Your task to perform on an android device: toggle wifi Image 0: 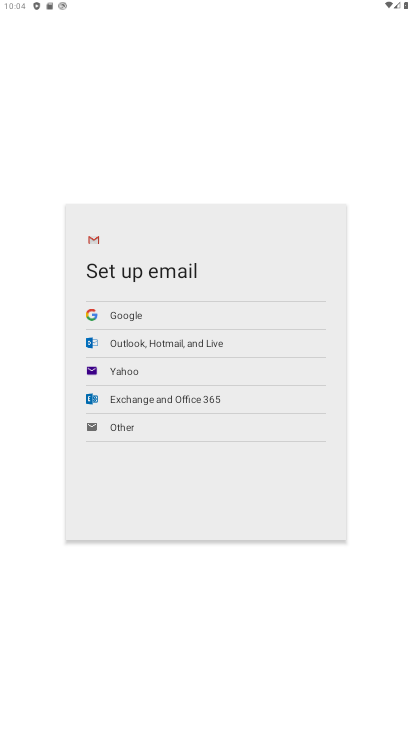
Step 0: press home button
Your task to perform on an android device: toggle wifi Image 1: 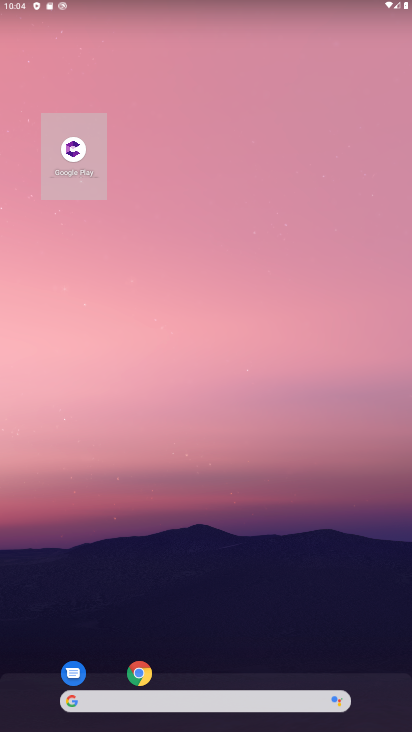
Step 1: task complete